Your task to perform on an android device: Do I have any events this weekend? Image 0: 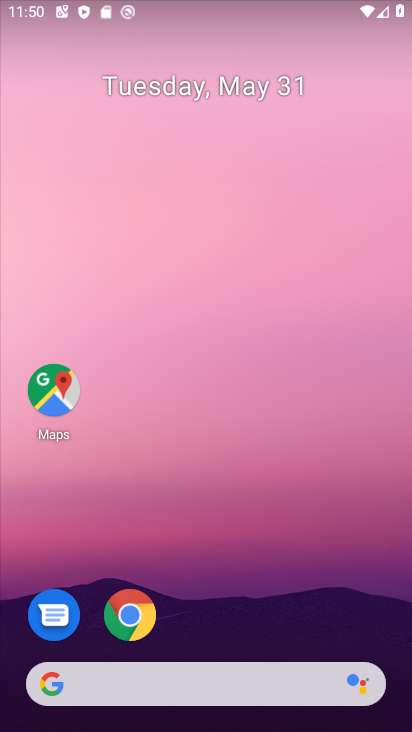
Step 0: task complete